Your task to perform on an android device: read, delete, or share a saved page in the chrome app Image 0: 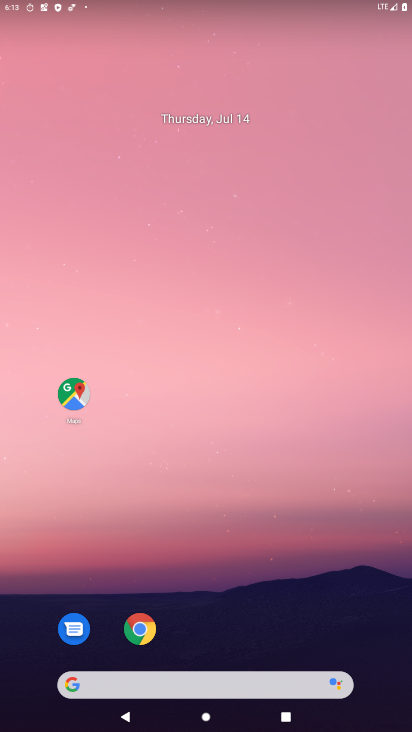
Step 0: drag from (218, 605) to (260, 160)
Your task to perform on an android device: read, delete, or share a saved page in the chrome app Image 1: 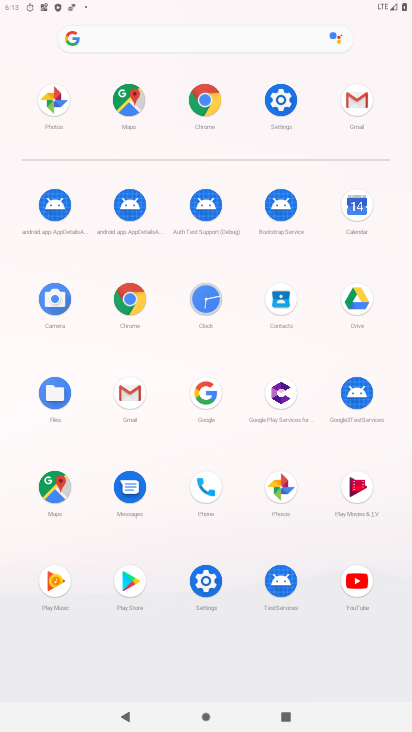
Step 1: click (133, 292)
Your task to perform on an android device: read, delete, or share a saved page in the chrome app Image 2: 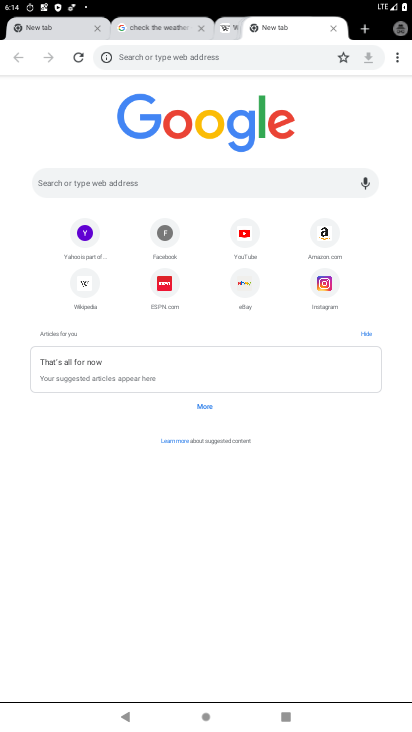
Step 2: click (401, 55)
Your task to perform on an android device: read, delete, or share a saved page in the chrome app Image 3: 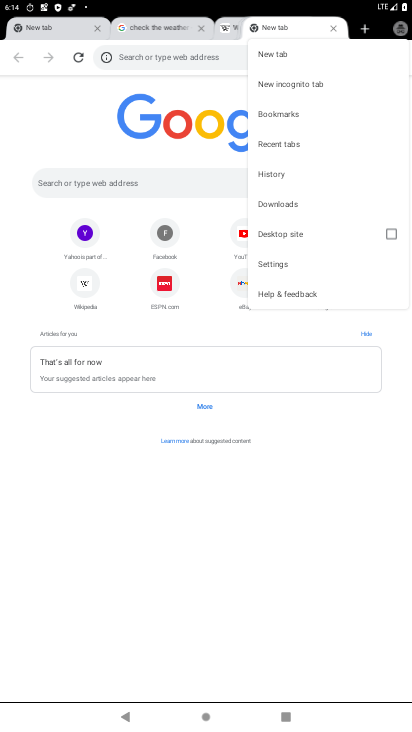
Step 3: click (285, 201)
Your task to perform on an android device: read, delete, or share a saved page in the chrome app Image 4: 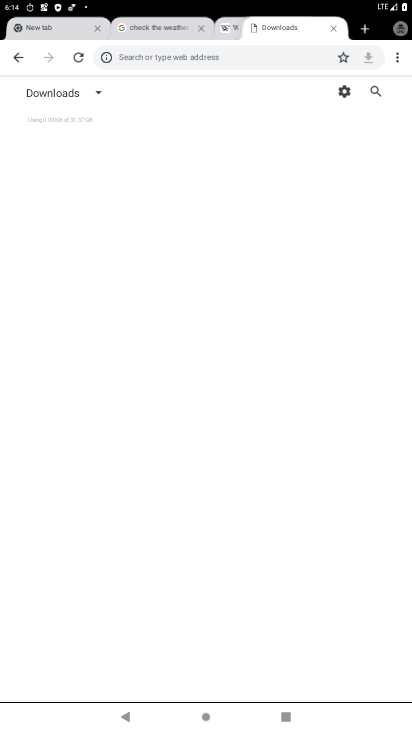
Step 4: task complete